Your task to perform on an android device: What's on my calendar tomorrow? Image 0: 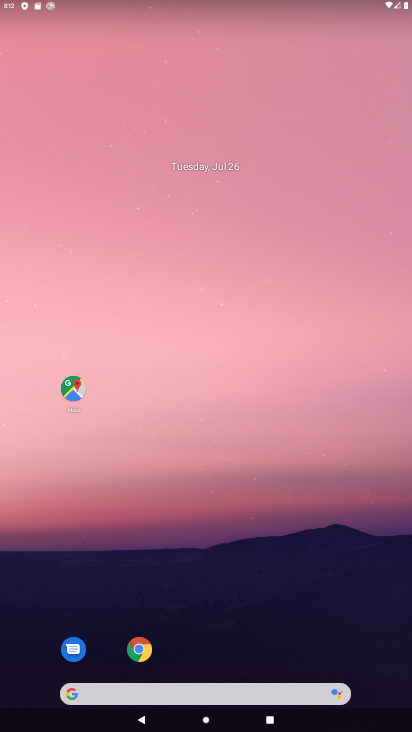
Step 0: click (182, 171)
Your task to perform on an android device: What's on my calendar tomorrow? Image 1: 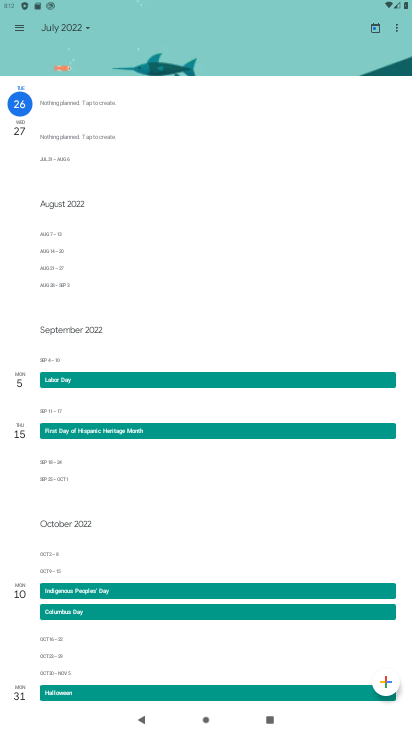
Step 1: click (20, 128)
Your task to perform on an android device: What's on my calendar tomorrow? Image 2: 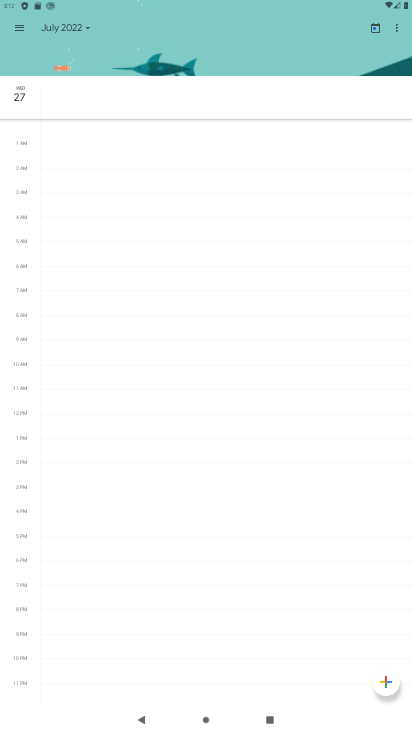
Step 2: task complete